Your task to perform on an android device: check data usage Image 0: 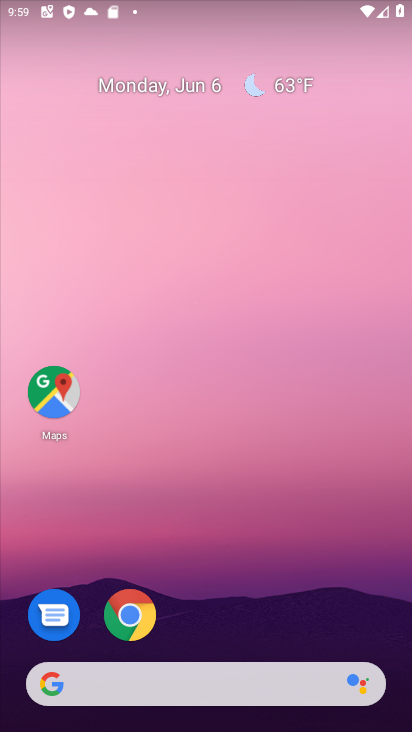
Step 0: drag from (244, 647) to (338, 8)
Your task to perform on an android device: check data usage Image 1: 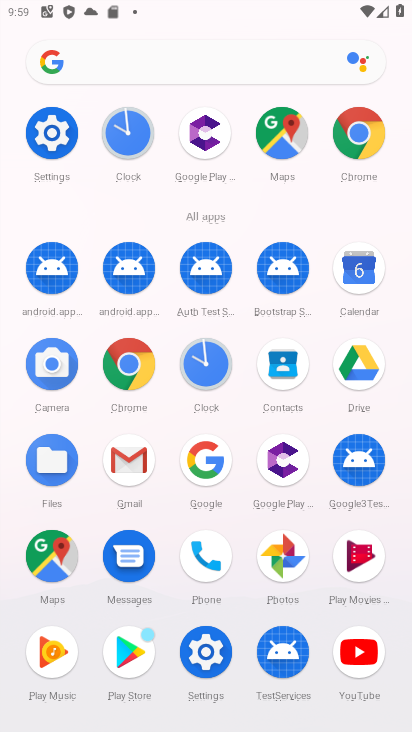
Step 1: click (44, 141)
Your task to perform on an android device: check data usage Image 2: 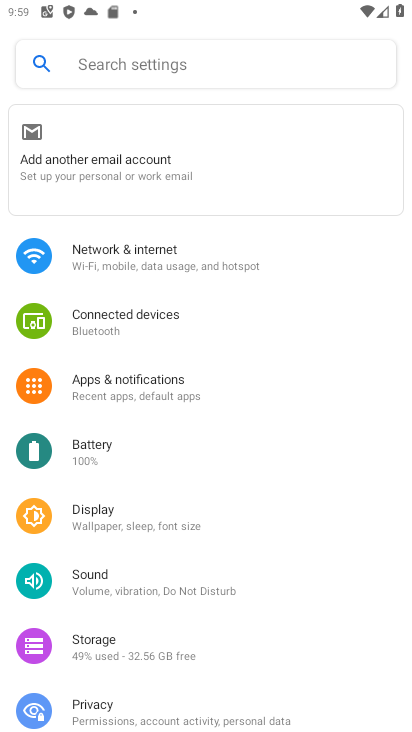
Step 2: click (183, 260)
Your task to perform on an android device: check data usage Image 3: 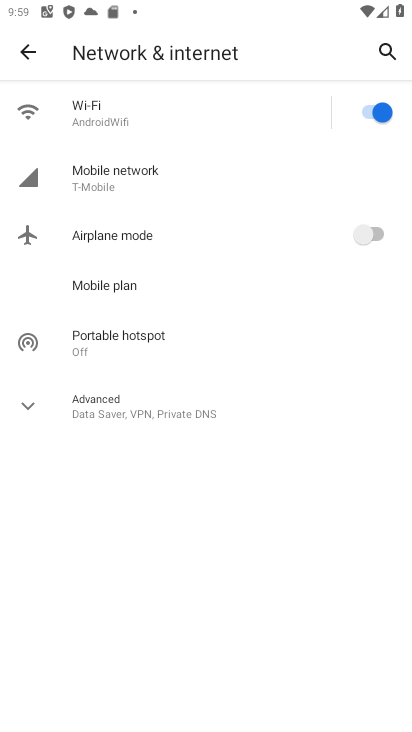
Step 3: click (155, 178)
Your task to perform on an android device: check data usage Image 4: 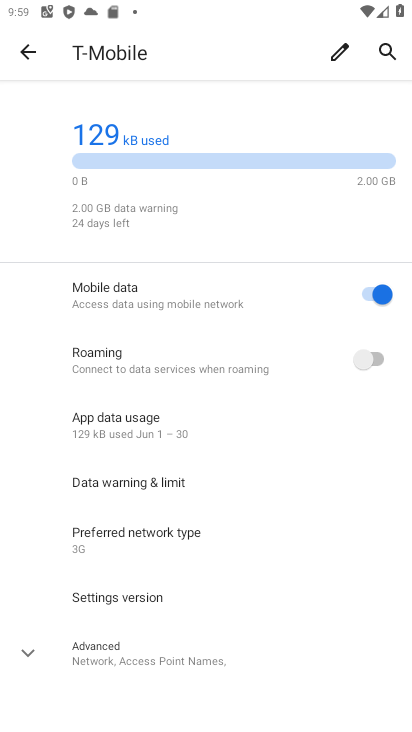
Step 4: click (158, 416)
Your task to perform on an android device: check data usage Image 5: 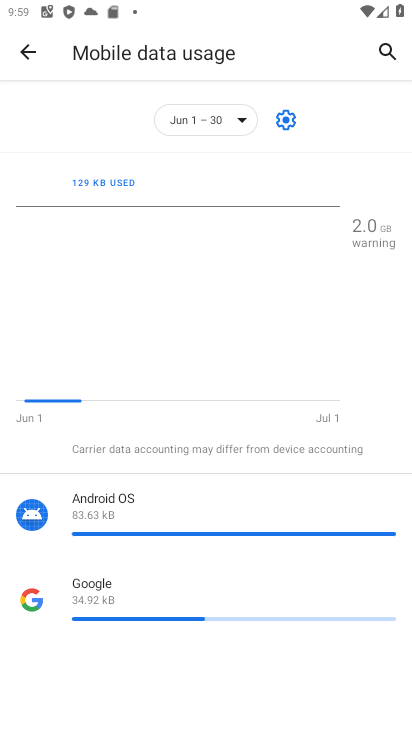
Step 5: task complete